Your task to perform on an android device: change the upload size in google photos Image 0: 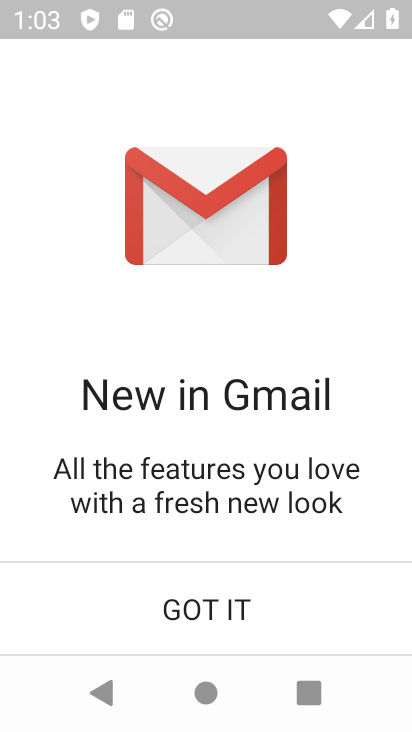
Step 0: press home button
Your task to perform on an android device: change the upload size in google photos Image 1: 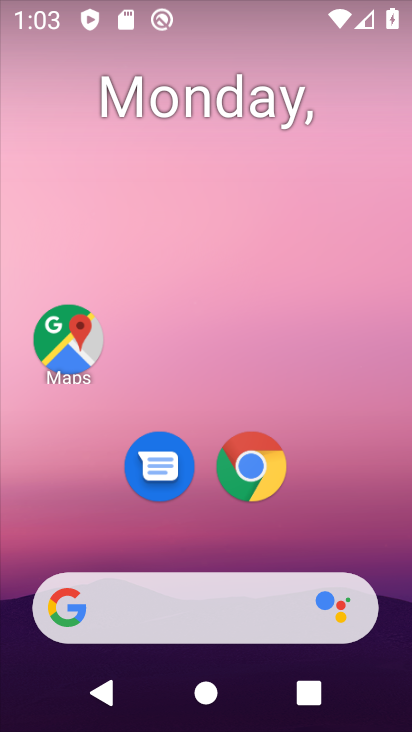
Step 1: drag from (191, 537) to (259, 0)
Your task to perform on an android device: change the upload size in google photos Image 2: 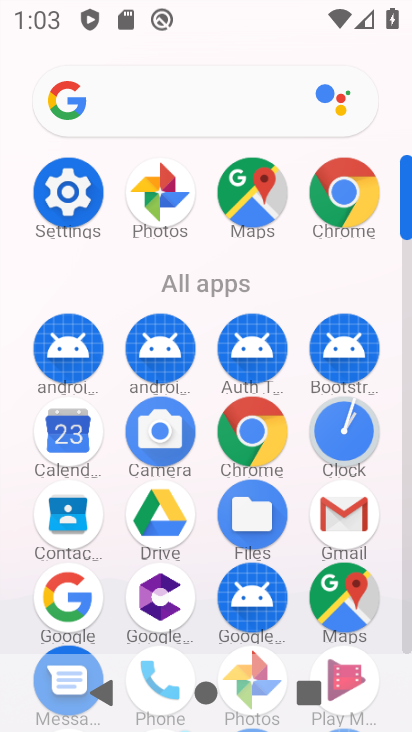
Step 2: drag from (204, 556) to (212, 105)
Your task to perform on an android device: change the upload size in google photos Image 3: 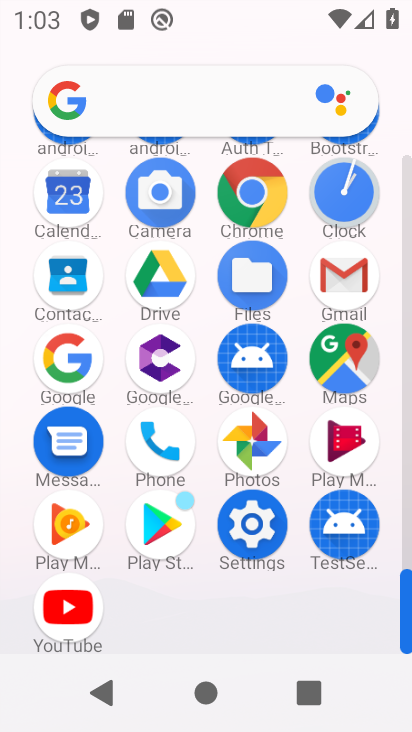
Step 3: click (244, 455)
Your task to perform on an android device: change the upload size in google photos Image 4: 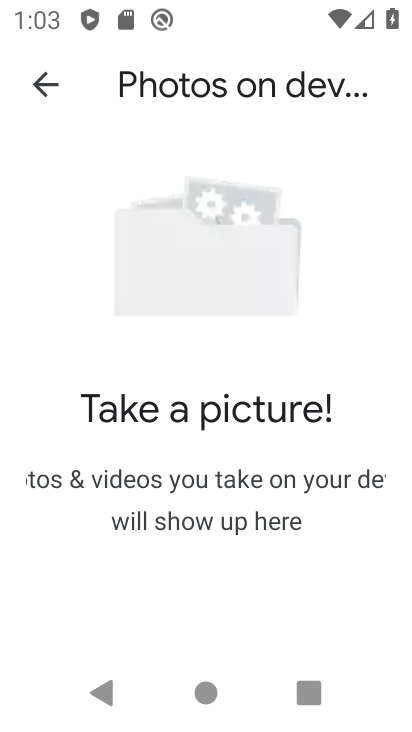
Step 4: click (47, 72)
Your task to perform on an android device: change the upload size in google photos Image 5: 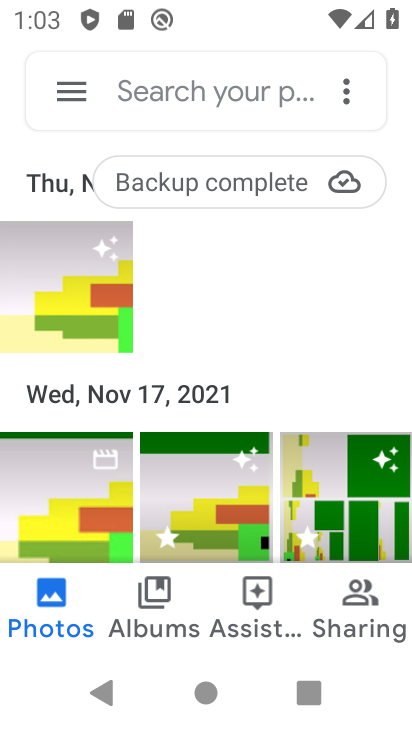
Step 5: click (57, 89)
Your task to perform on an android device: change the upload size in google photos Image 6: 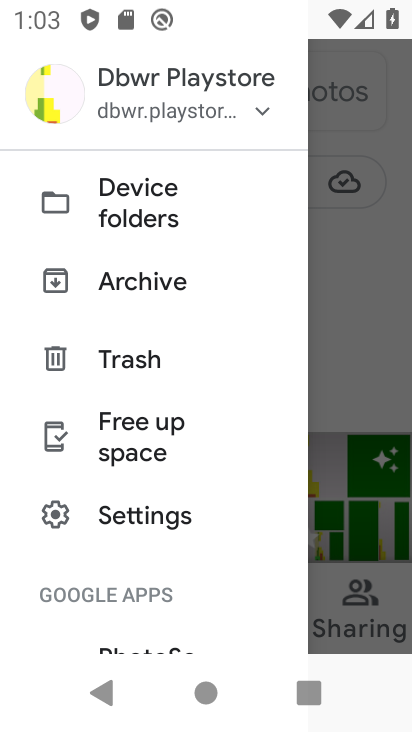
Step 6: click (126, 528)
Your task to perform on an android device: change the upload size in google photos Image 7: 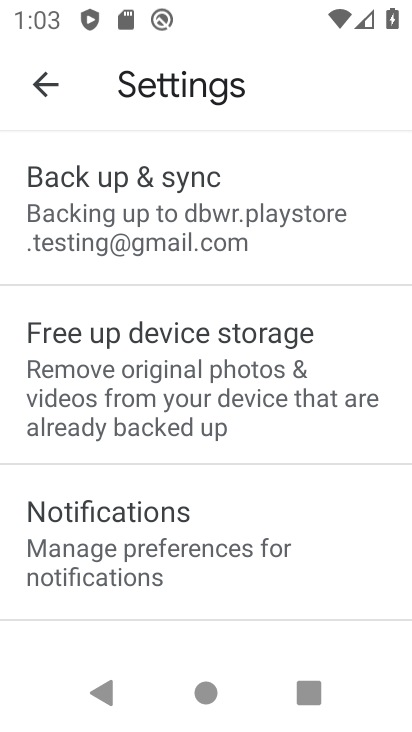
Step 7: click (166, 241)
Your task to perform on an android device: change the upload size in google photos Image 8: 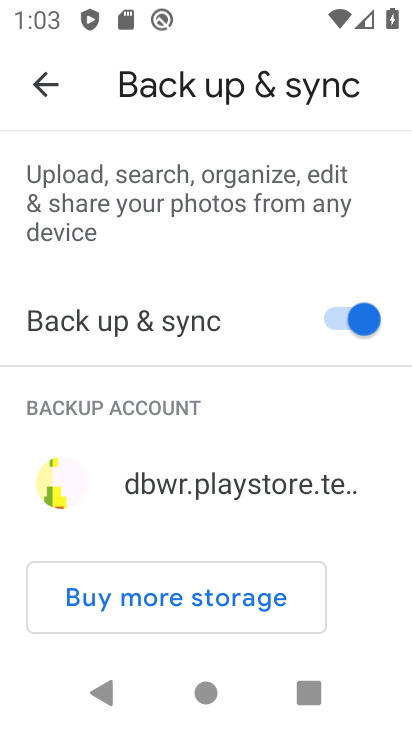
Step 8: drag from (199, 507) to (327, 68)
Your task to perform on an android device: change the upload size in google photos Image 9: 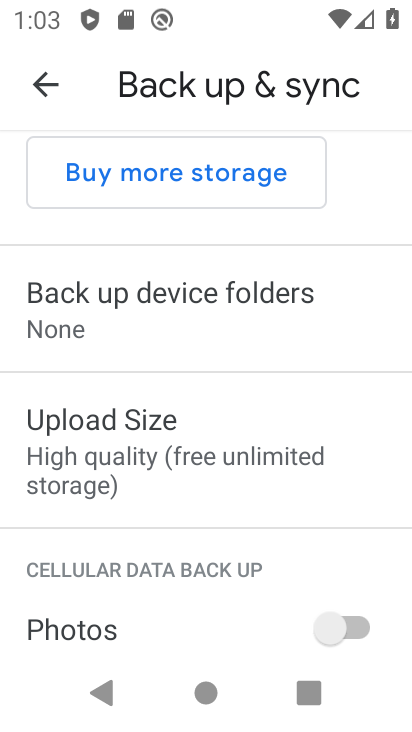
Step 9: click (196, 471)
Your task to perform on an android device: change the upload size in google photos Image 10: 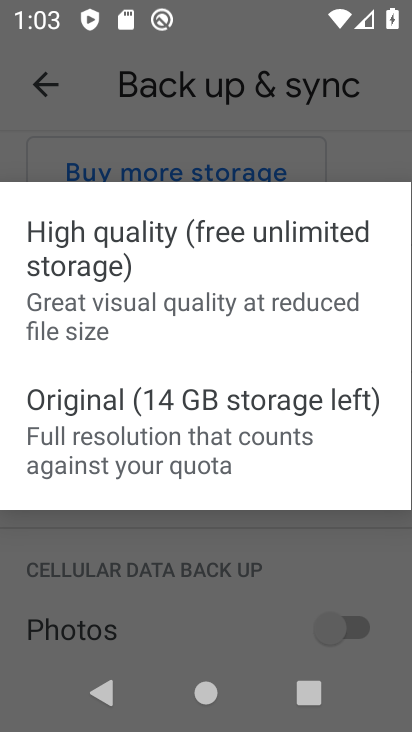
Step 10: click (125, 433)
Your task to perform on an android device: change the upload size in google photos Image 11: 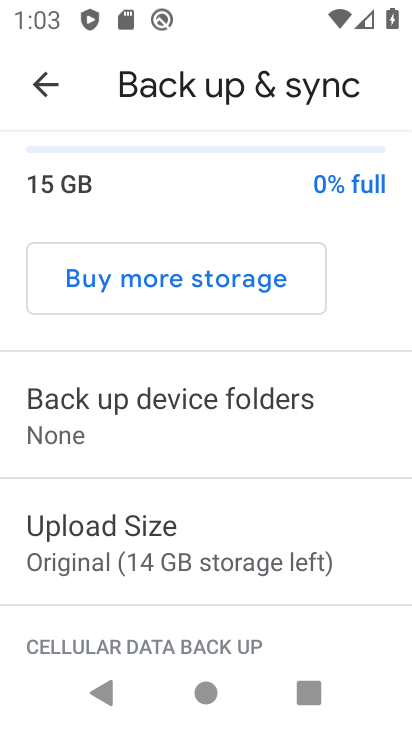
Step 11: task complete